Your task to perform on an android device: When is my next appointment? Image 0: 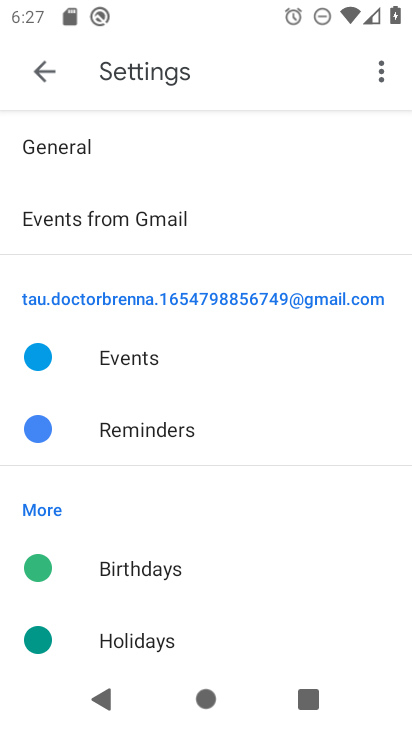
Step 0: press home button
Your task to perform on an android device: When is my next appointment? Image 1: 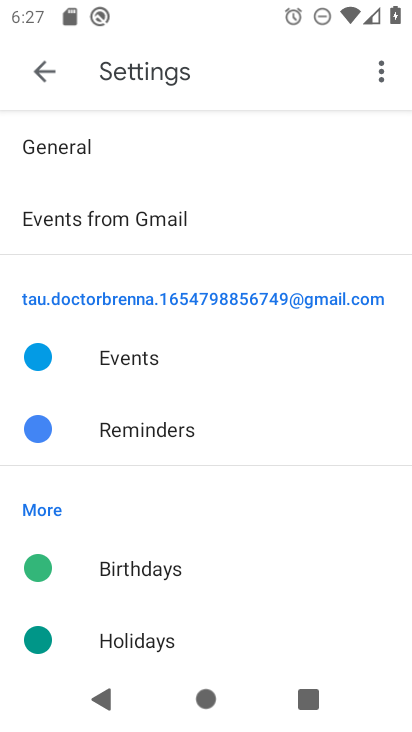
Step 1: press home button
Your task to perform on an android device: When is my next appointment? Image 2: 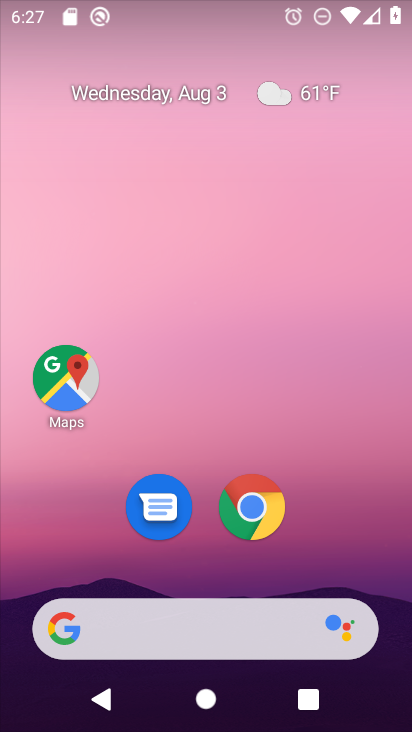
Step 2: drag from (351, 520) to (318, 65)
Your task to perform on an android device: When is my next appointment? Image 3: 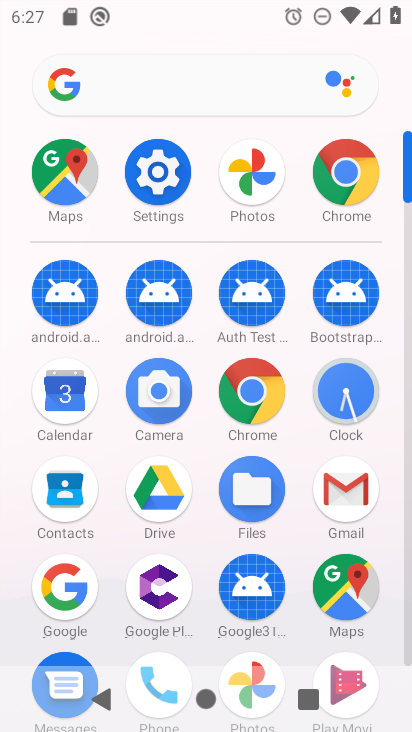
Step 3: drag from (288, 554) to (300, 220)
Your task to perform on an android device: When is my next appointment? Image 4: 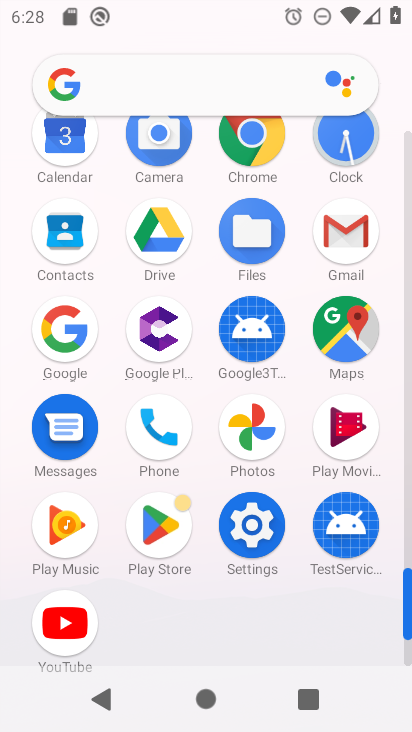
Step 4: click (65, 134)
Your task to perform on an android device: When is my next appointment? Image 5: 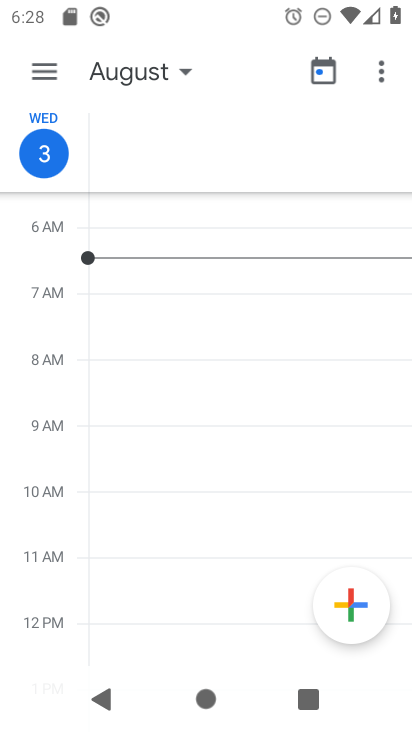
Step 5: click (35, 72)
Your task to perform on an android device: When is my next appointment? Image 6: 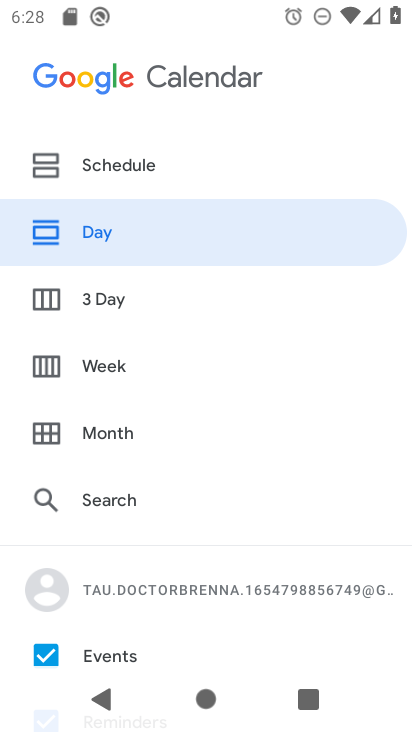
Step 6: click (96, 358)
Your task to perform on an android device: When is my next appointment? Image 7: 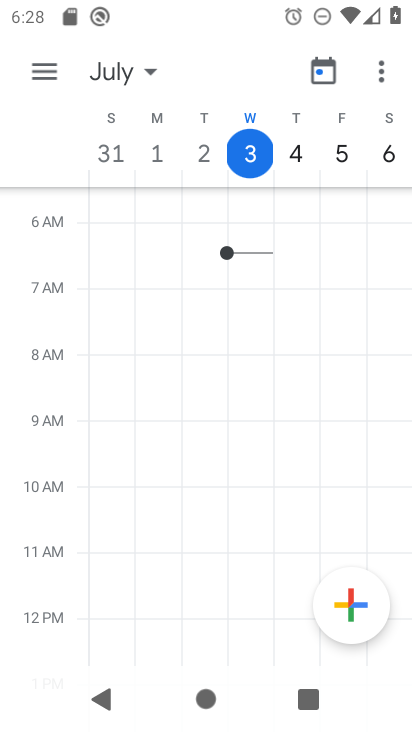
Step 7: task complete